Your task to perform on an android device: Open Amazon Image 0: 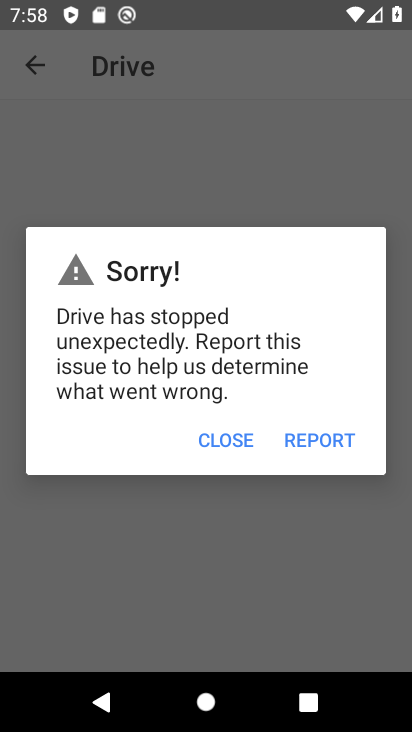
Step 0: press back button
Your task to perform on an android device: Open Amazon Image 1: 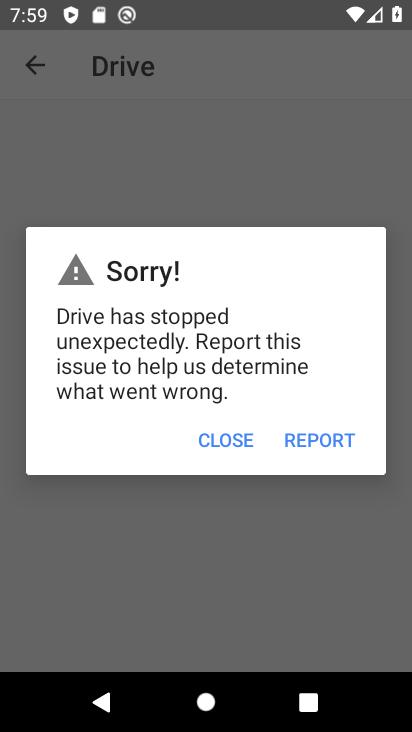
Step 1: click (216, 434)
Your task to perform on an android device: Open Amazon Image 2: 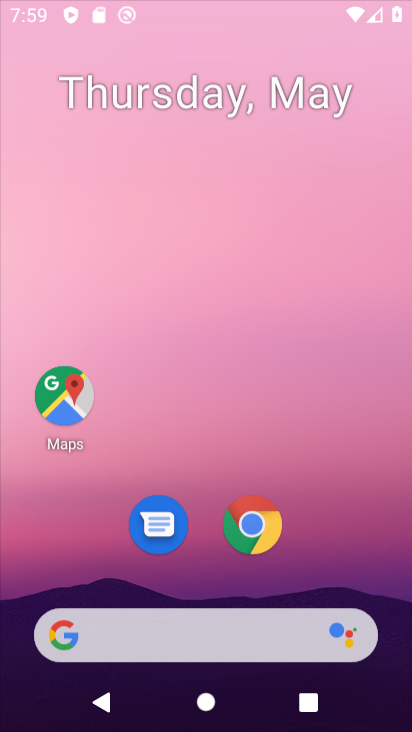
Step 2: click (219, 433)
Your task to perform on an android device: Open Amazon Image 3: 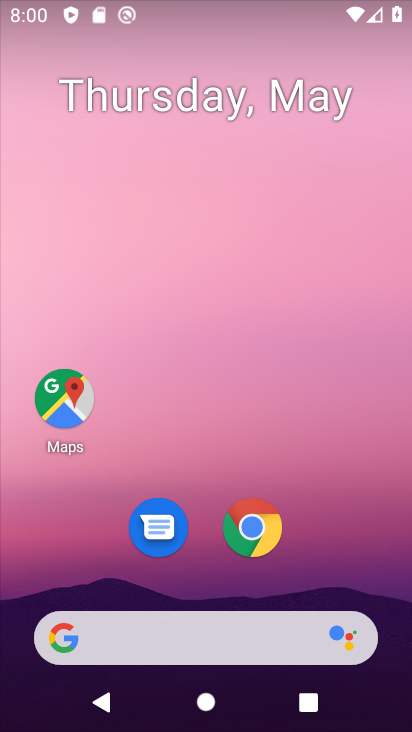
Step 3: drag from (294, 539) to (161, 23)
Your task to perform on an android device: Open Amazon Image 4: 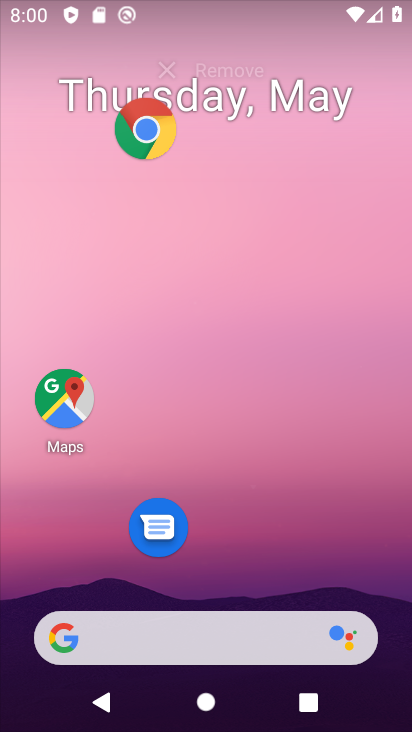
Step 4: drag from (270, 385) to (160, 7)
Your task to perform on an android device: Open Amazon Image 5: 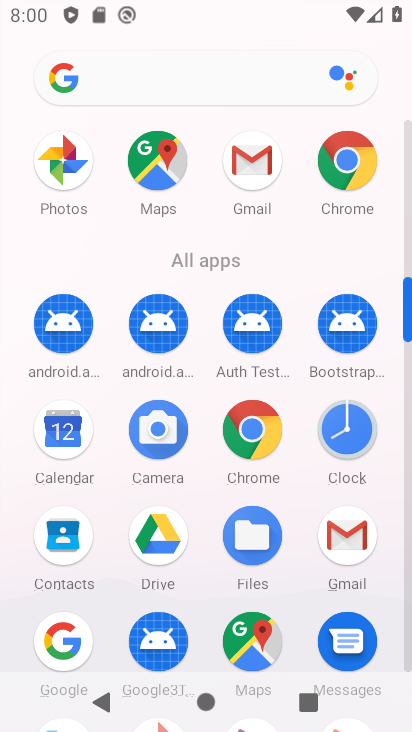
Step 5: drag from (245, 270) to (97, 29)
Your task to perform on an android device: Open Amazon Image 6: 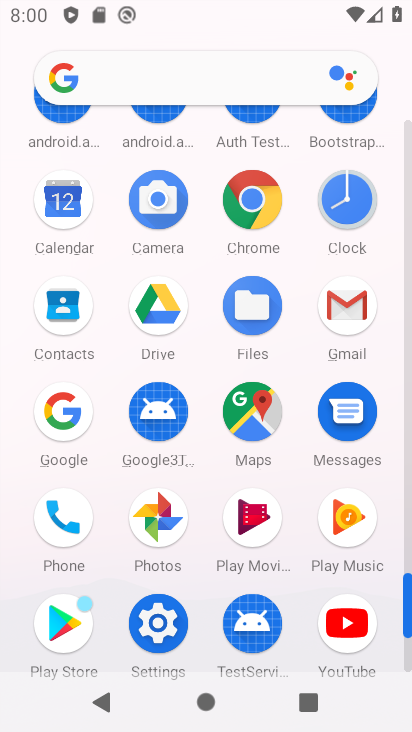
Step 6: click (240, 222)
Your task to perform on an android device: Open Amazon Image 7: 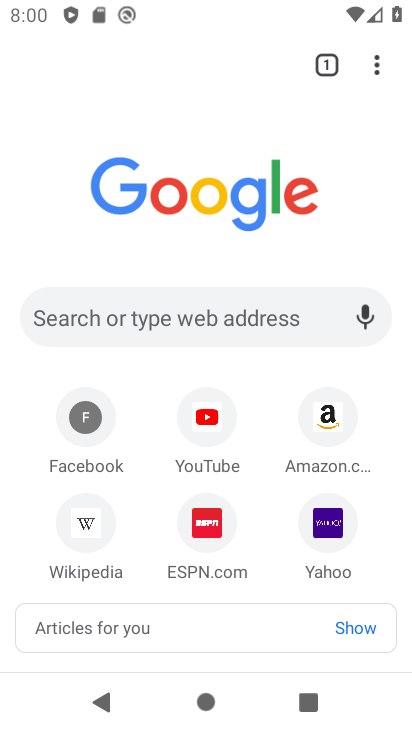
Step 7: click (249, 215)
Your task to perform on an android device: Open Amazon Image 8: 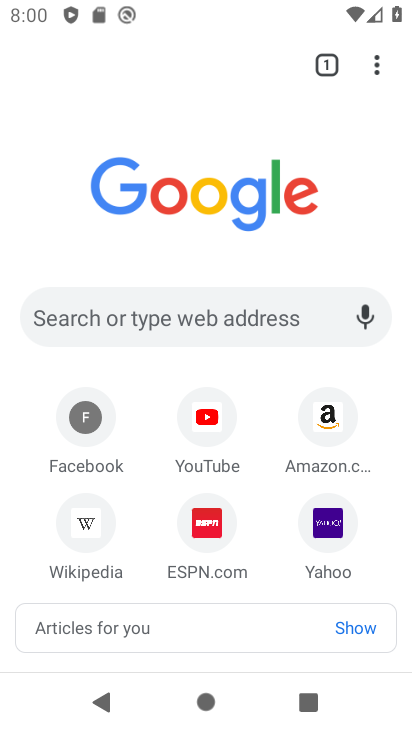
Step 8: click (252, 202)
Your task to perform on an android device: Open Amazon Image 9: 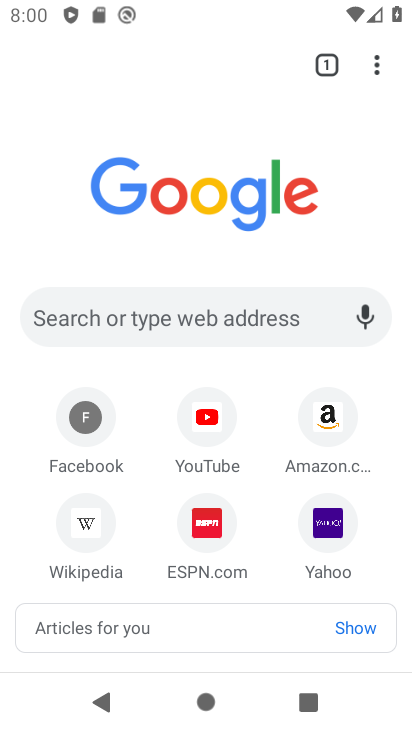
Step 9: click (321, 413)
Your task to perform on an android device: Open Amazon Image 10: 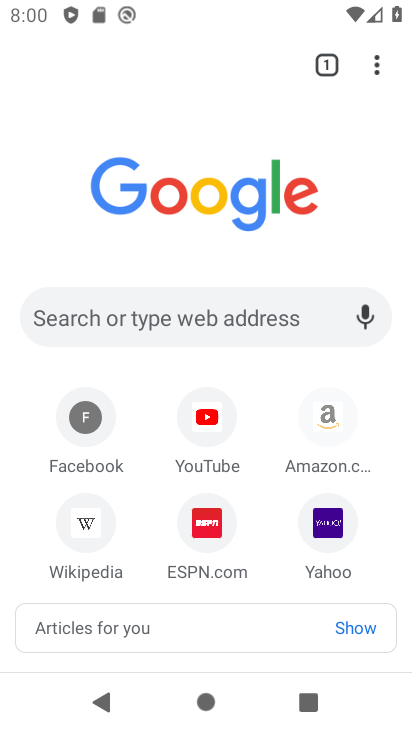
Step 10: click (321, 403)
Your task to perform on an android device: Open Amazon Image 11: 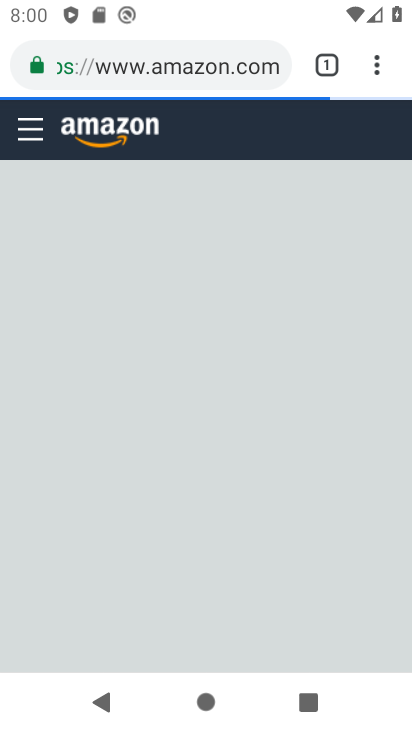
Step 11: click (313, 393)
Your task to perform on an android device: Open Amazon Image 12: 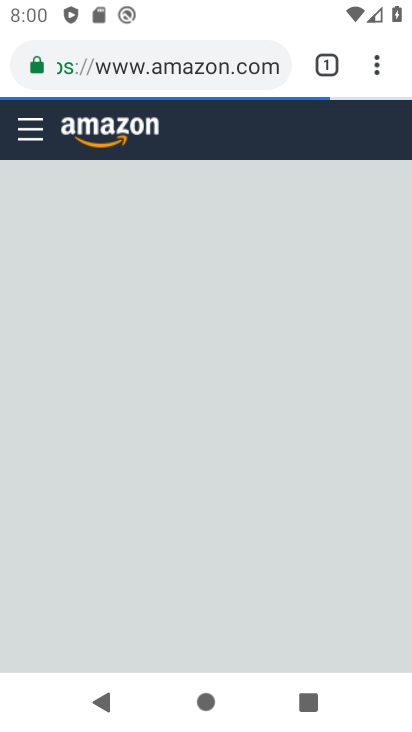
Step 12: click (317, 415)
Your task to perform on an android device: Open Amazon Image 13: 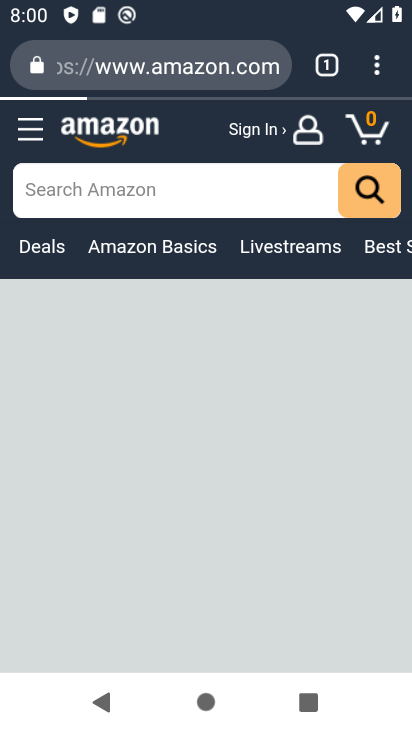
Step 13: task complete